Your task to perform on an android device: add a label to a message in the gmail app Image 0: 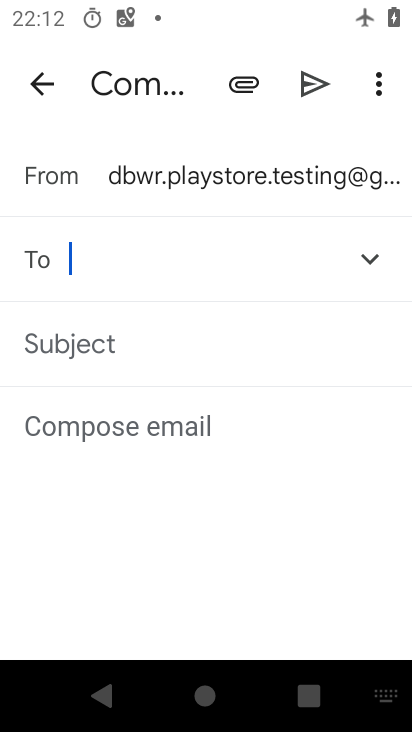
Step 0: press home button
Your task to perform on an android device: add a label to a message in the gmail app Image 1: 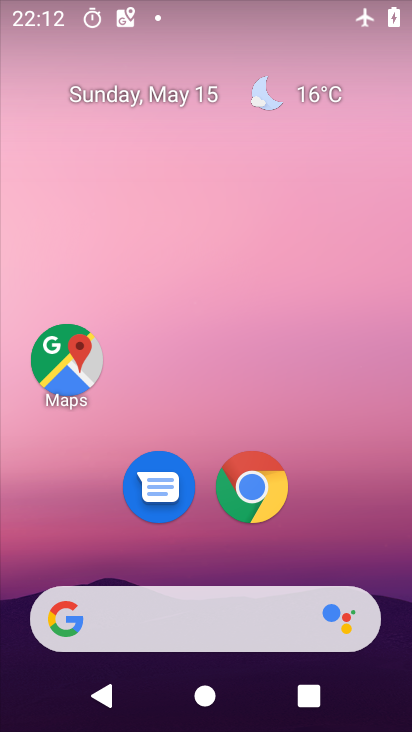
Step 1: drag from (401, 656) to (377, 247)
Your task to perform on an android device: add a label to a message in the gmail app Image 2: 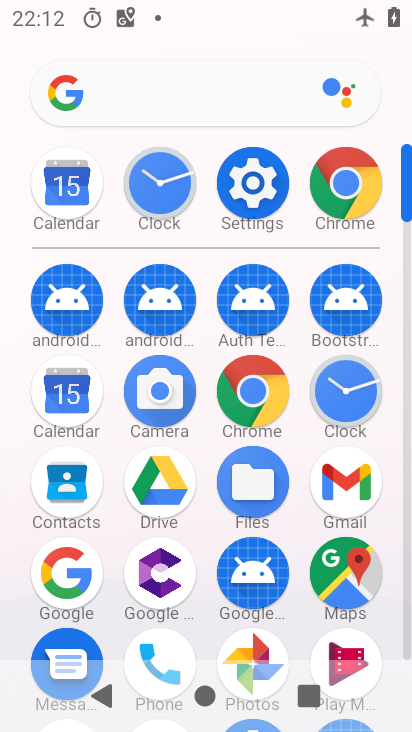
Step 2: click (350, 472)
Your task to perform on an android device: add a label to a message in the gmail app Image 3: 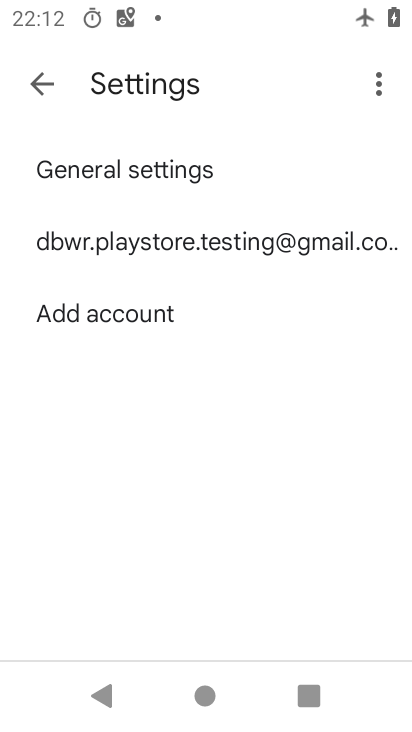
Step 3: click (36, 77)
Your task to perform on an android device: add a label to a message in the gmail app Image 4: 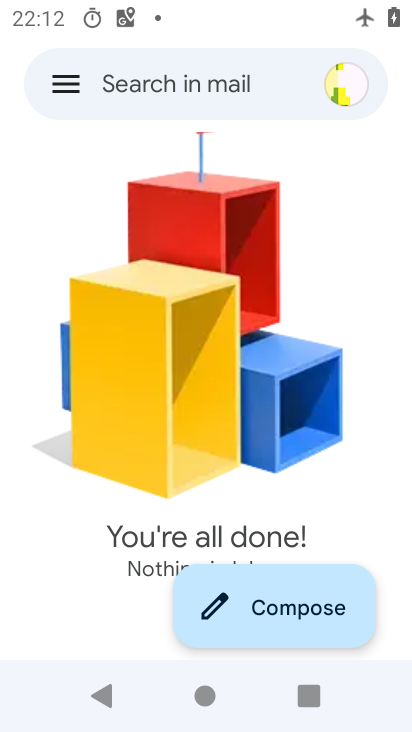
Step 4: click (67, 64)
Your task to perform on an android device: add a label to a message in the gmail app Image 5: 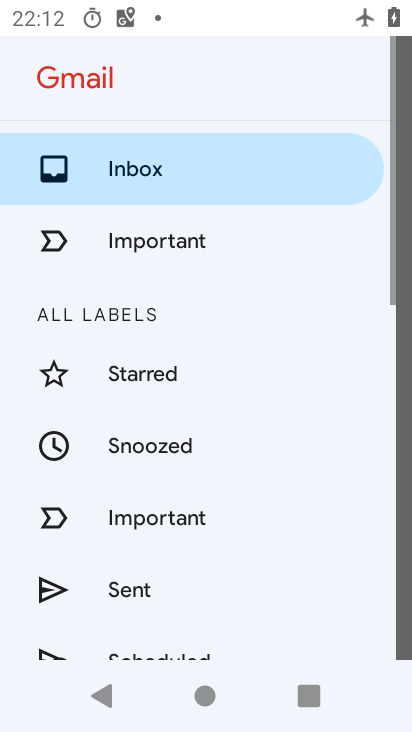
Step 5: click (124, 155)
Your task to perform on an android device: add a label to a message in the gmail app Image 6: 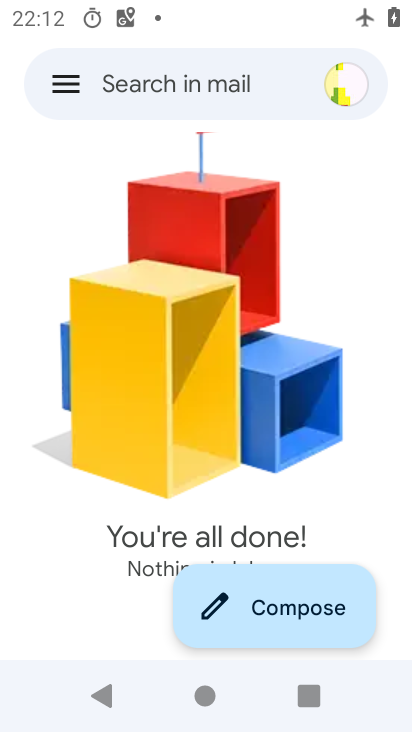
Step 6: task complete